Your task to perform on an android device: toggle pop-ups in chrome Image 0: 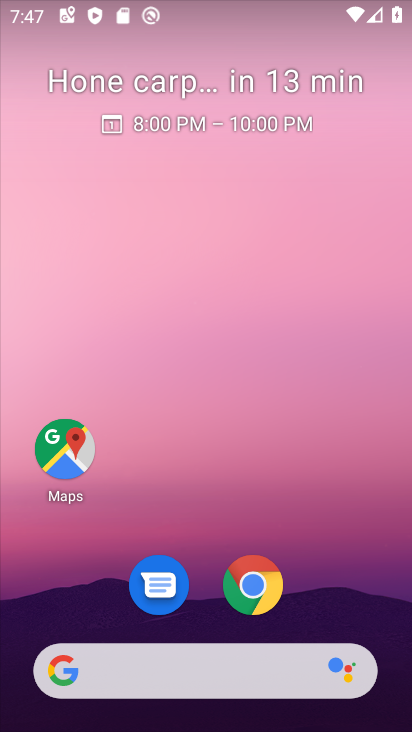
Step 0: click (254, 578)
Your task to perform on an android device: toggle pop-ups in chrome Image 1: 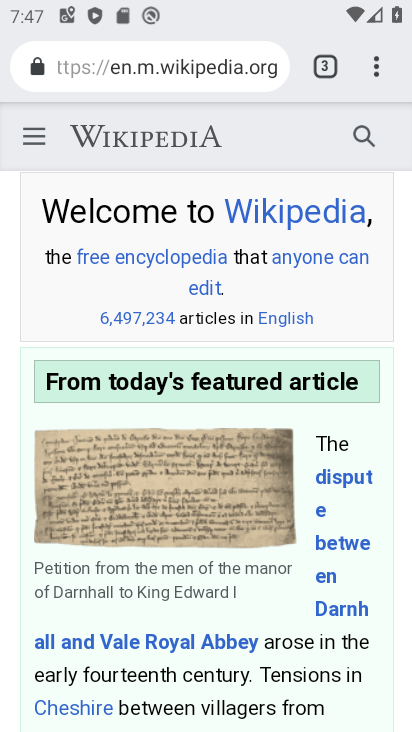
Step 1: click (379, 65)
Your task to perform on an android device: toggle pop-ups in chrome Image 2: 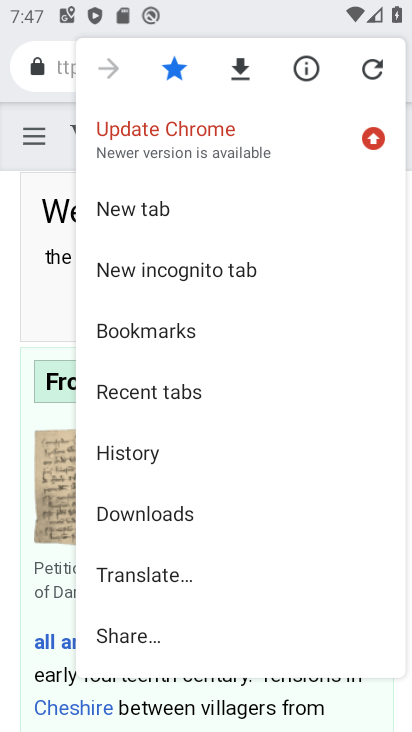
Step 2: drag from (223, 543) to (273, 268)
Your task to perform on an android device: toggle pop-ups in chrome Image 3: 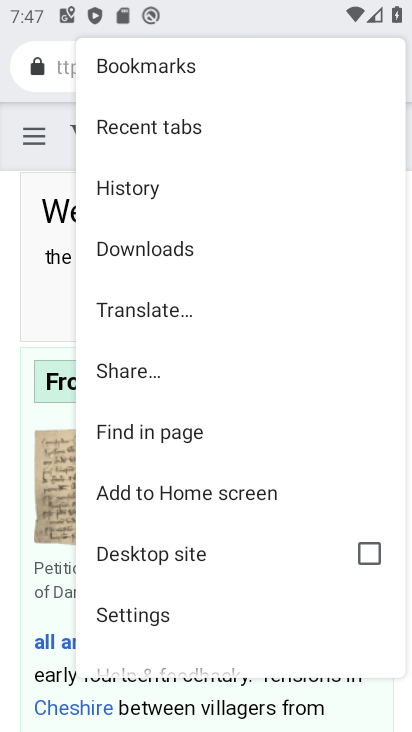
Step 3: click (185, 613)
Your task to perform on an android device: toggle pop-ups in chrome Image 4: 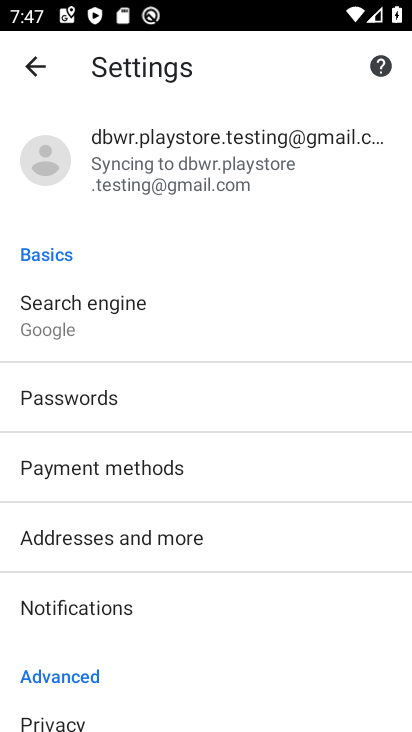
Step 4: drag from (185, 613) to (244, 277)
Your task to perform on an android device: toggle pop-ups in chrome Image 5: 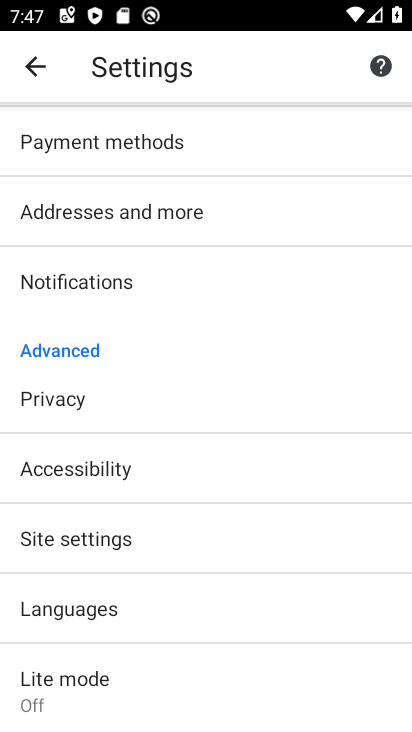
Step 5: click (213, 539)
Your task to perform on an android device: toggle pop-ups in chrome Image 6: 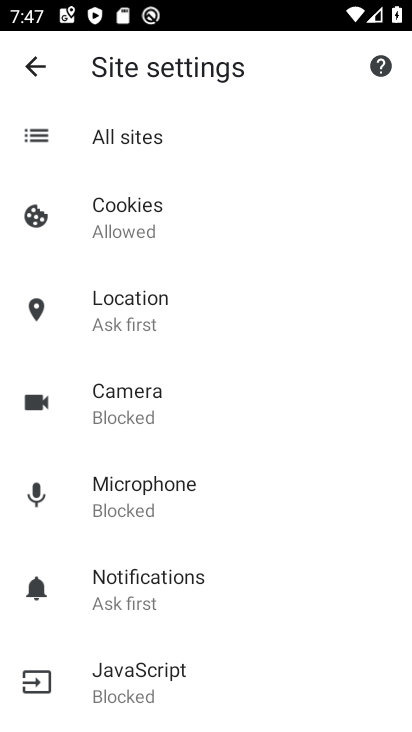
Step 6: drag from (213, 539) to (241, 293)
Your task to perform on an android device: toggle pop-ups in chrome Image 7: 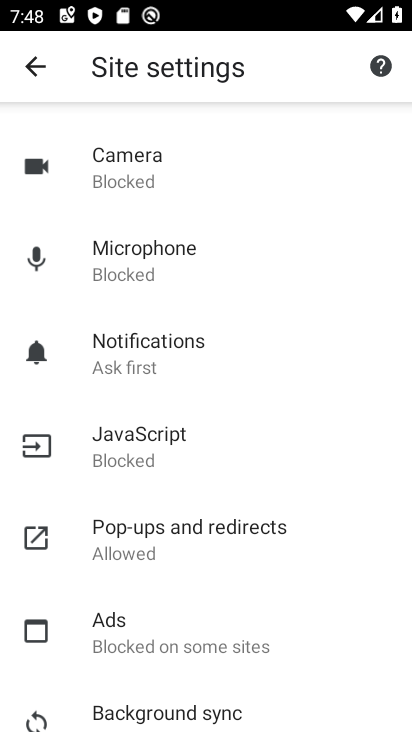
Step 7: click (183, 533)
Your task to perform on an android device: toggle pop-ups in chrome Image 8: 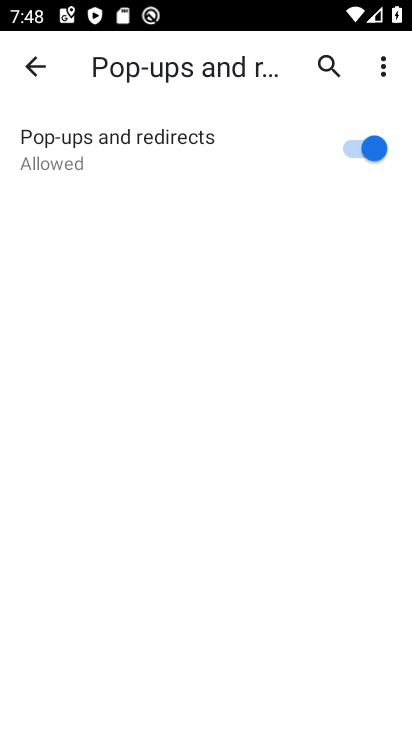
Step 8: click (362, 143)
Your task to perform on an android device: toggle pop-ups in chrome Image 9: 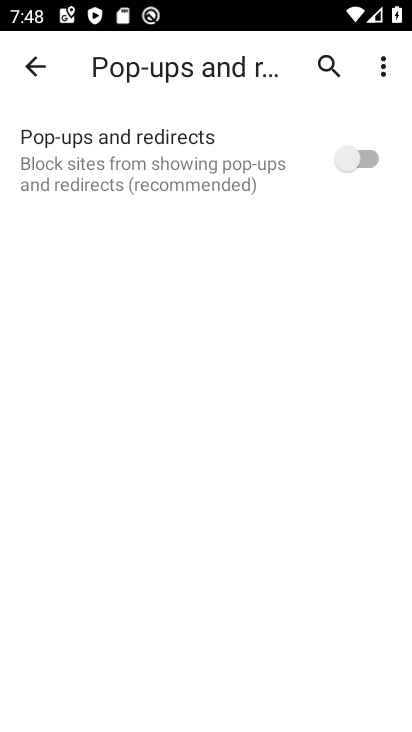
Step 9: task complete